Your task to perform on an android device: open app "Pinterest" (install if not already installed) Image 0: 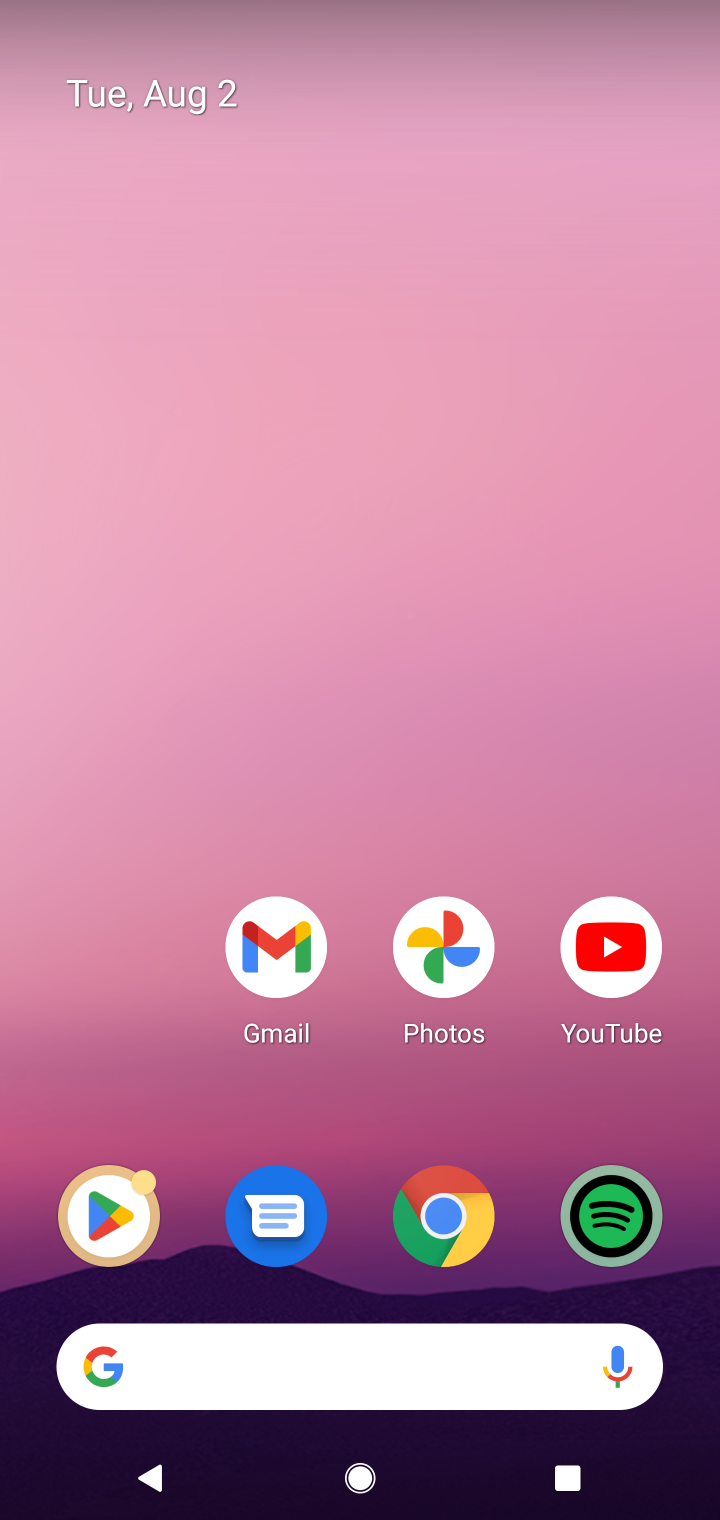
Step 0: click (110, 1211)
Your task to perform on an android device: open app "Pinterest" (install if not already installed) Image 1: 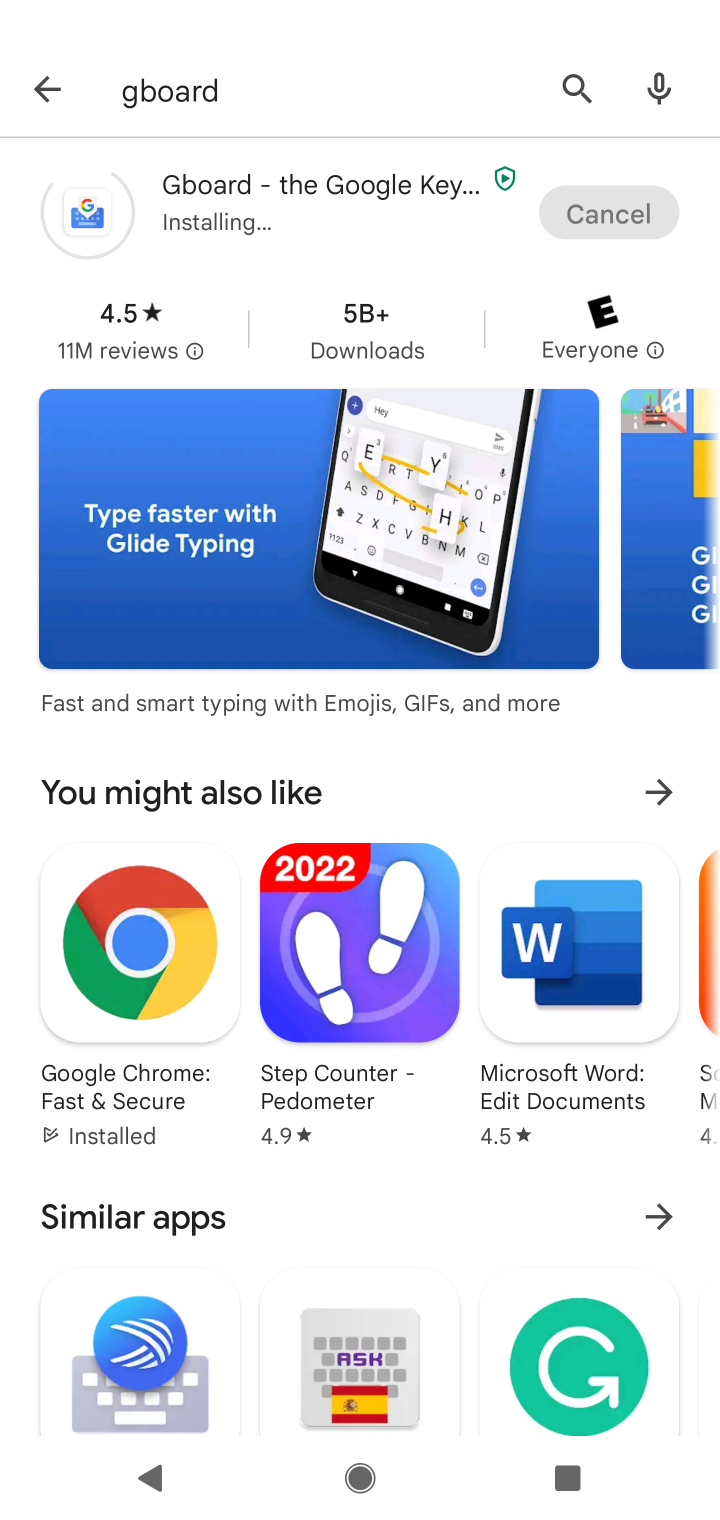
Step 1: click (592, 85)
Your task to perform on an android device: open app "Pinterest" (install if not already installed) Image 2: 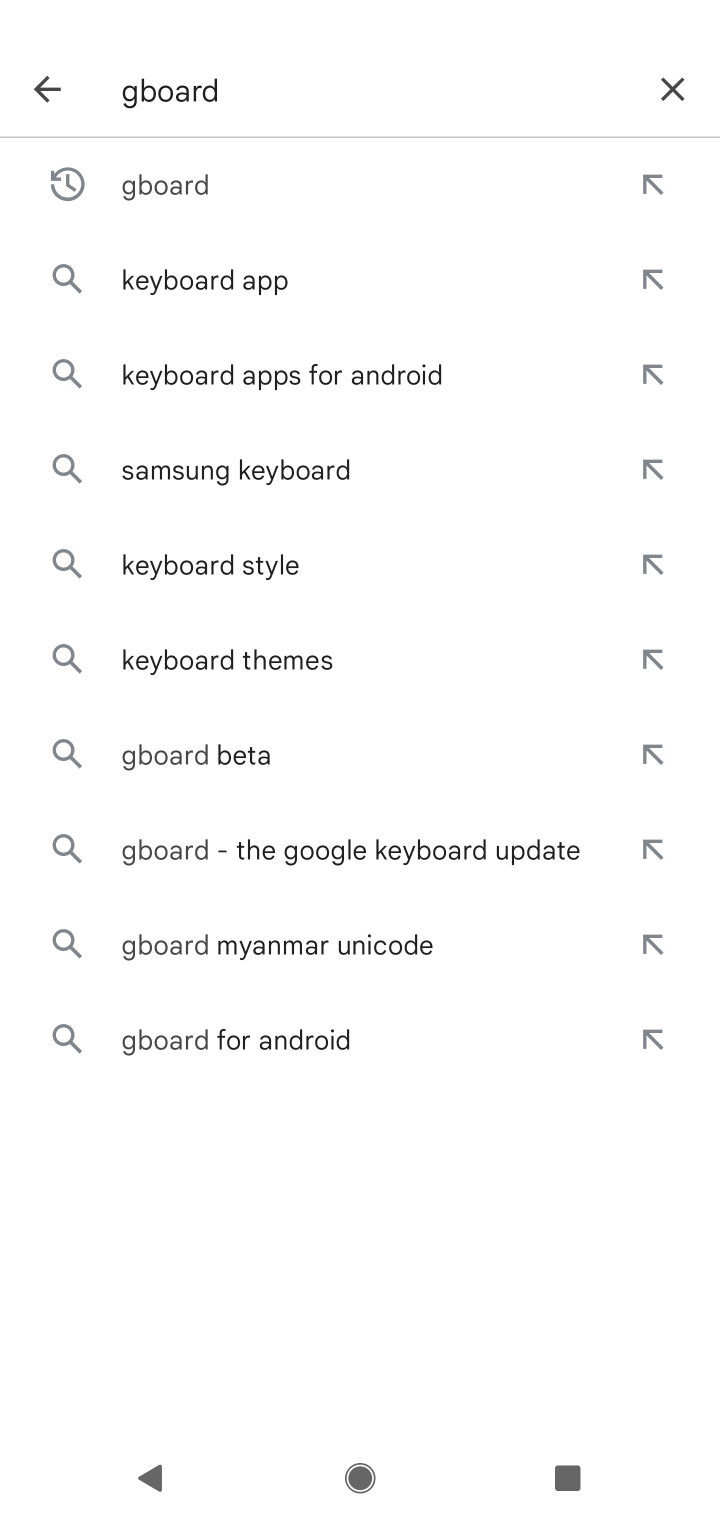
Step 2: click (673, 73)
Your task to perform on an android device: open app "Pinterest" (install if not already installed) Image 3: 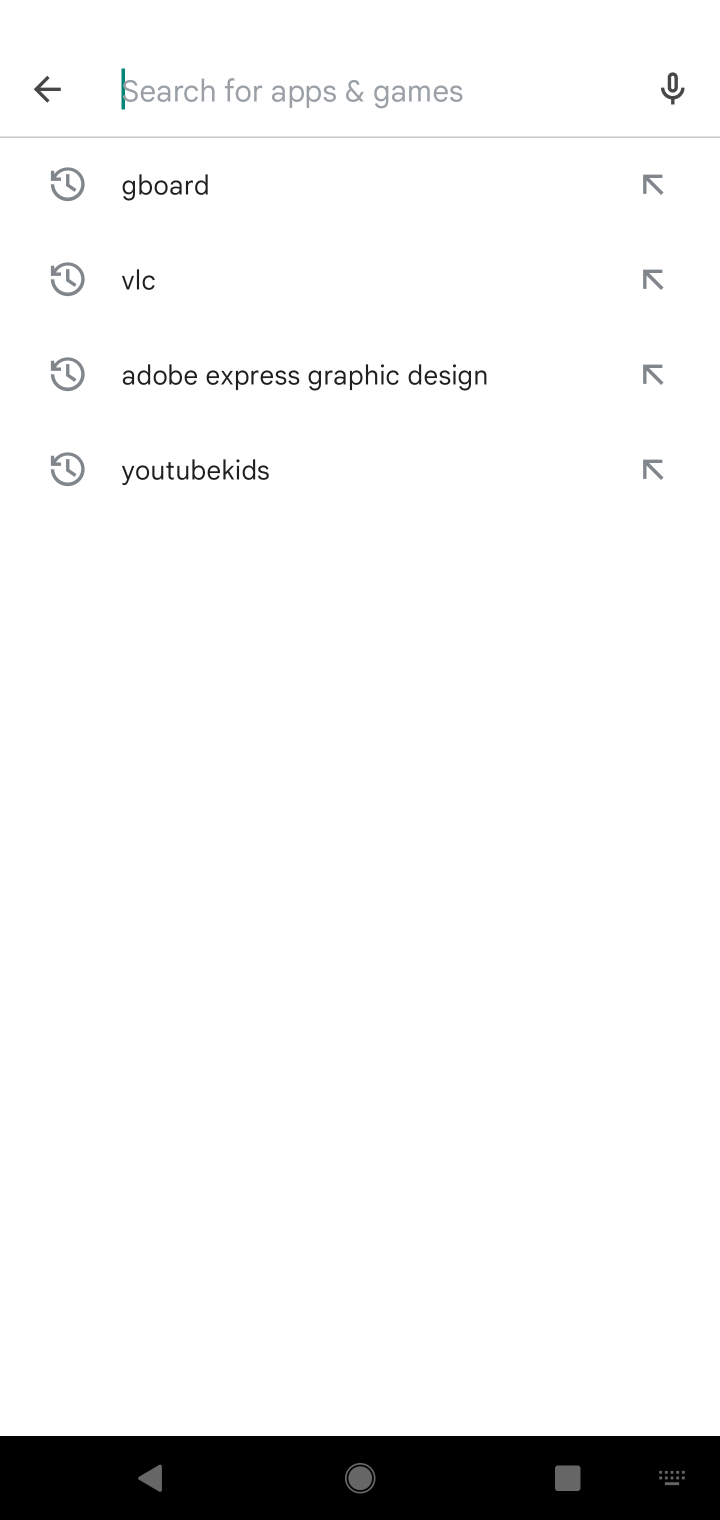
Step 3: type "pinterest"
Your task to perform on an android device: open app "Pinterest" (install if not already installed) Image 4: 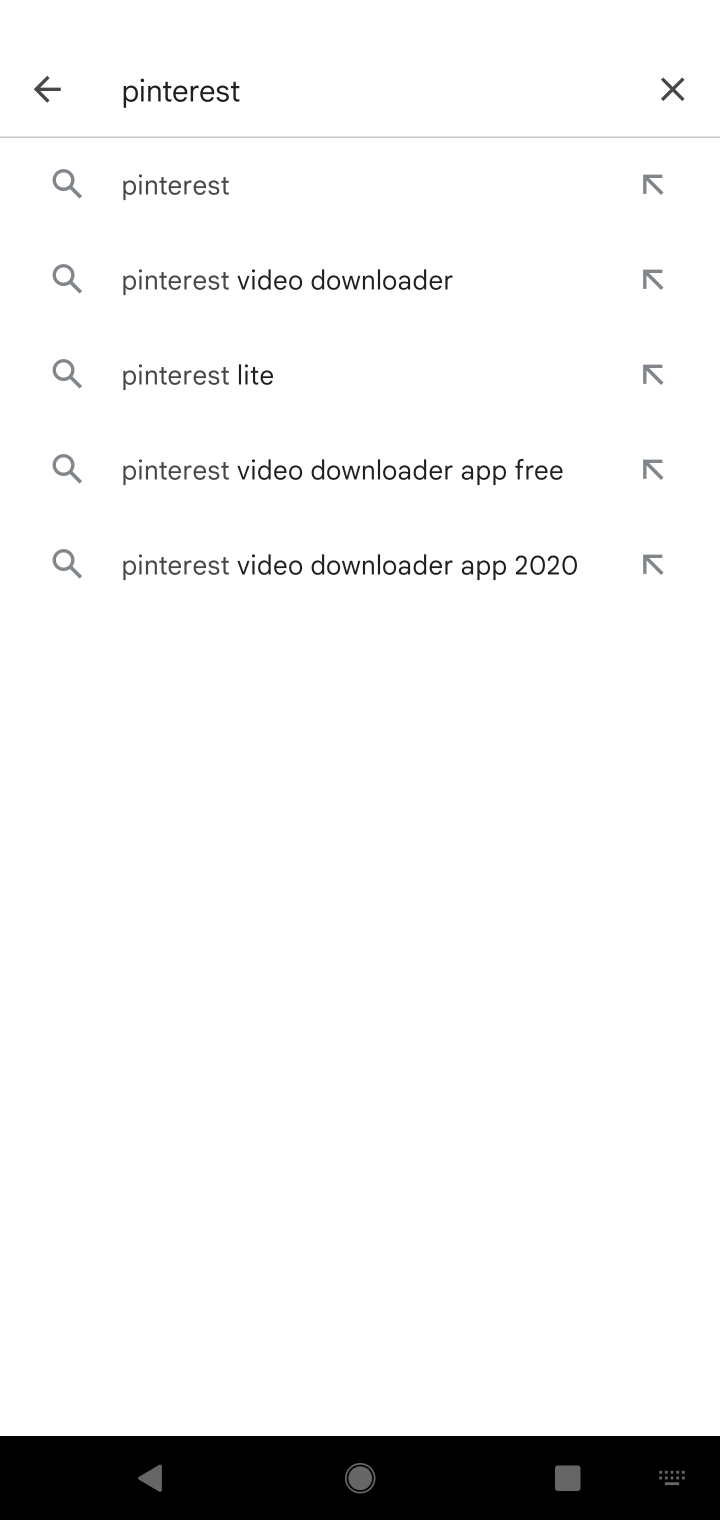
Step 4: click (337, 167)
Your task to perform on an android device: open app "Pinterest" (install if not already installed) Image 5: 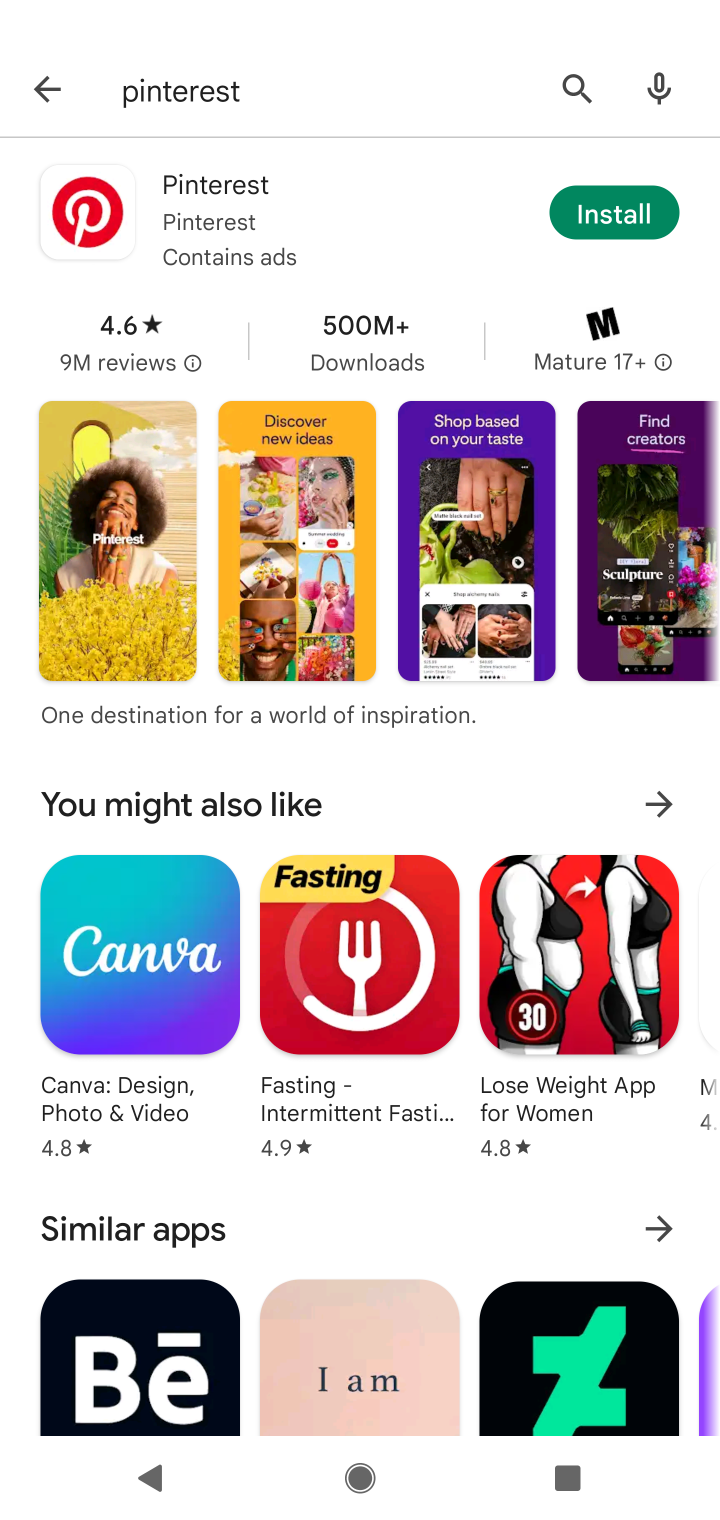
Step 5: click (633, 207)
Your task to perform on an android device: open app "Pinterest" (install if not already installed) Image 6: 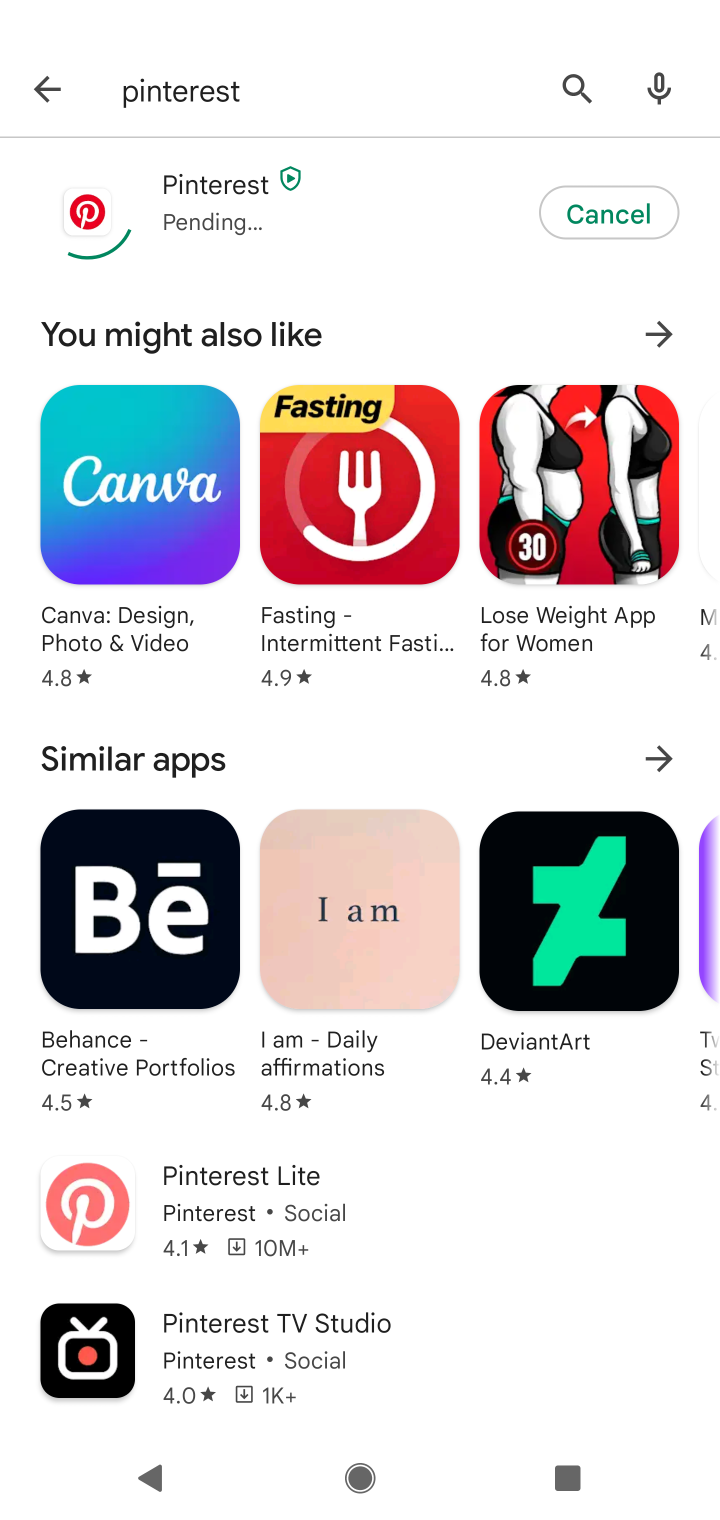
Step 6: task complete